Your task to perform on an android device: allow cookies in the chrome app Image 0: 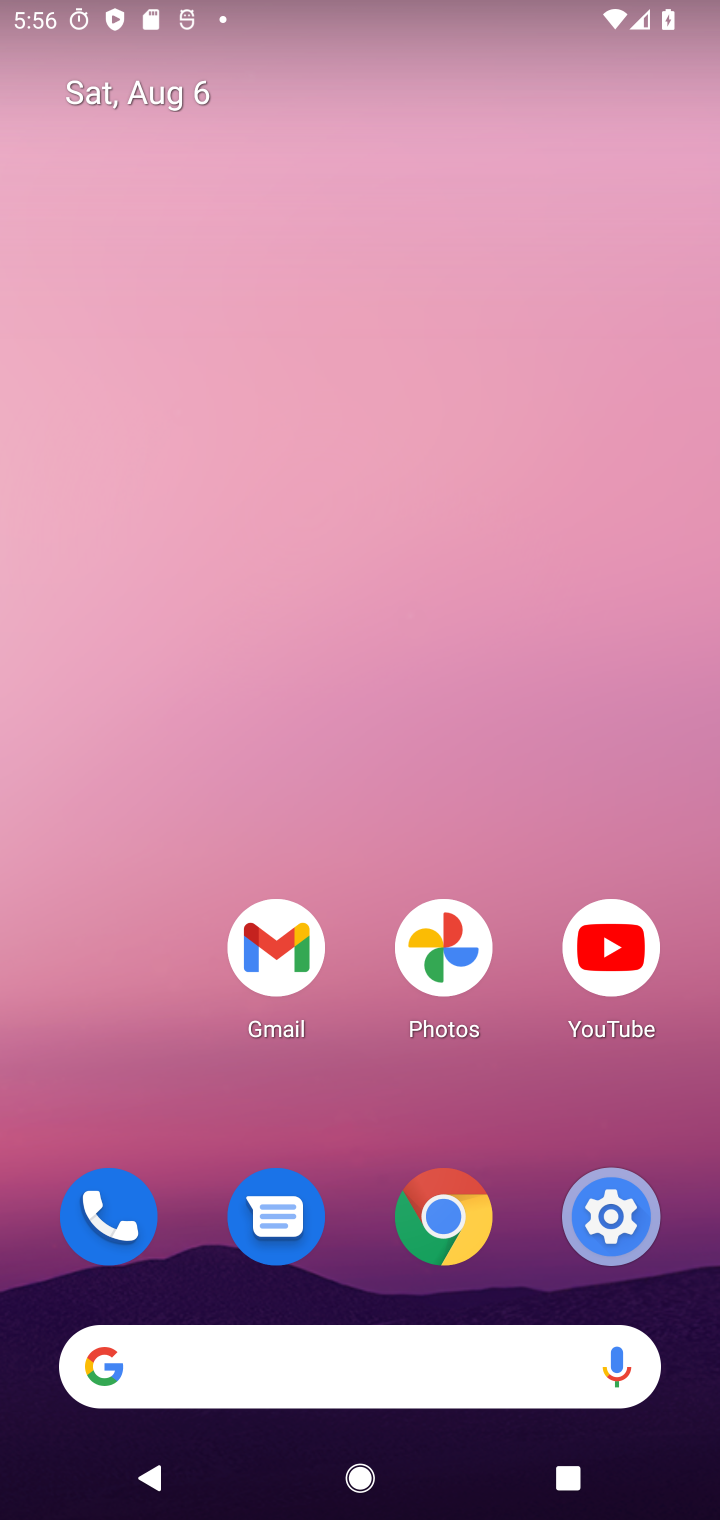
Step 0: drag from (396, 1048) to (386, 0)
Your task to perform on an android device: allow cookies in the chrome app Image 1: 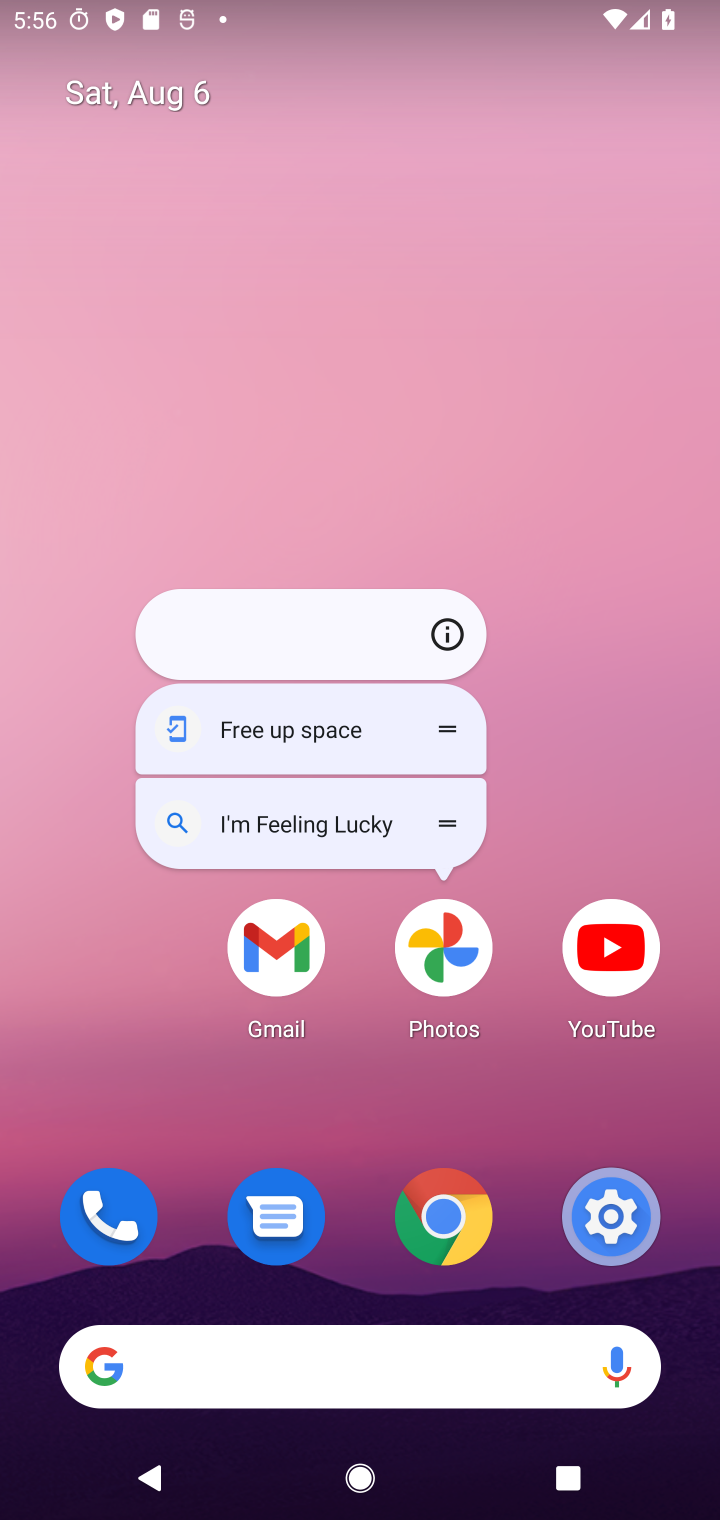
Step 1: click (368, 1099)
Your task to perform on an android device: allow cookies in the chrome app Image 2: 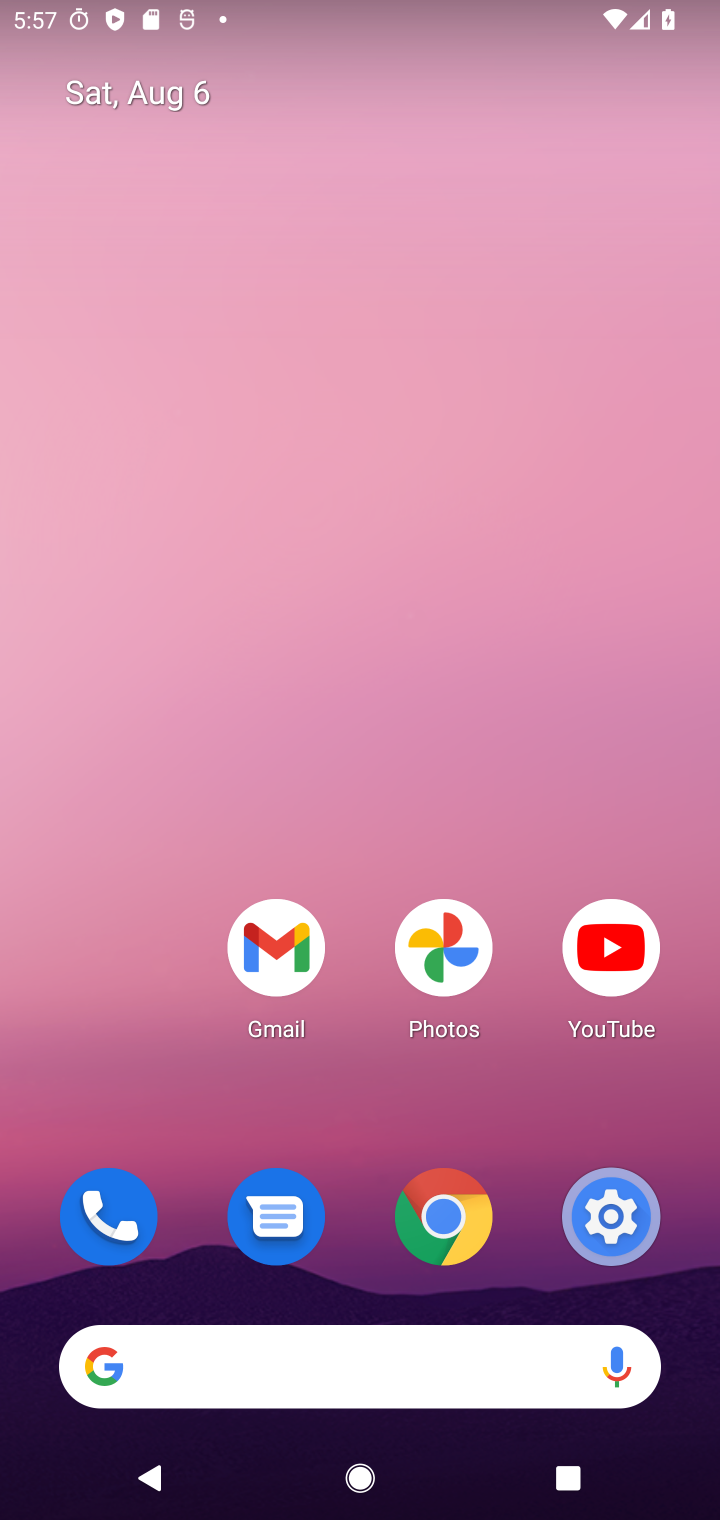
Step 2: drag from (369, 946) to (408, 239)
Your task to perform on an android device: allow cookies in the chrome app Image 3: 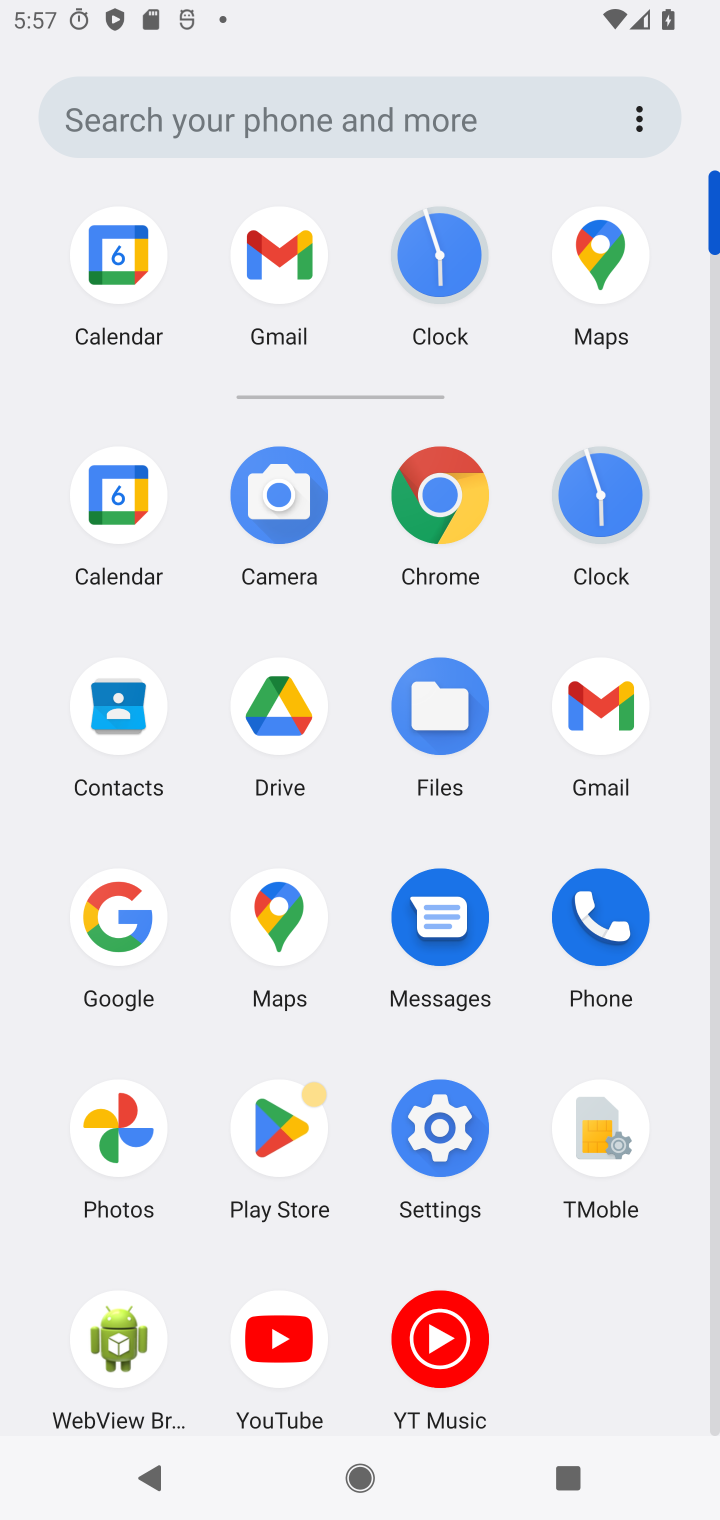
Step 3: click (438, 487)
Your task to perform on an android device: allow cookies in the chrome app Image 4: 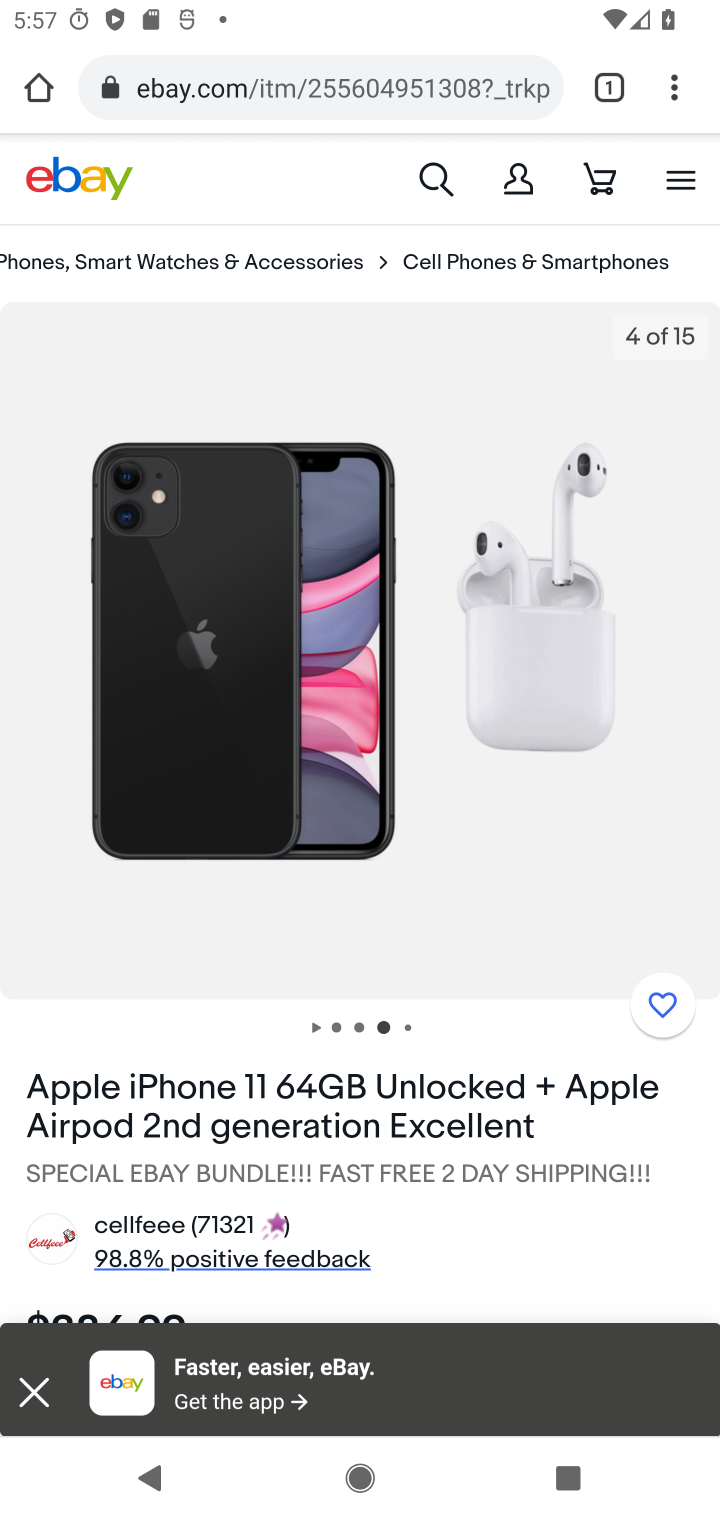
Step 4: drag from (678, 91) to (394, 1102)
Your task to perform on an android device: allow cookies in the chrome app Image 5: 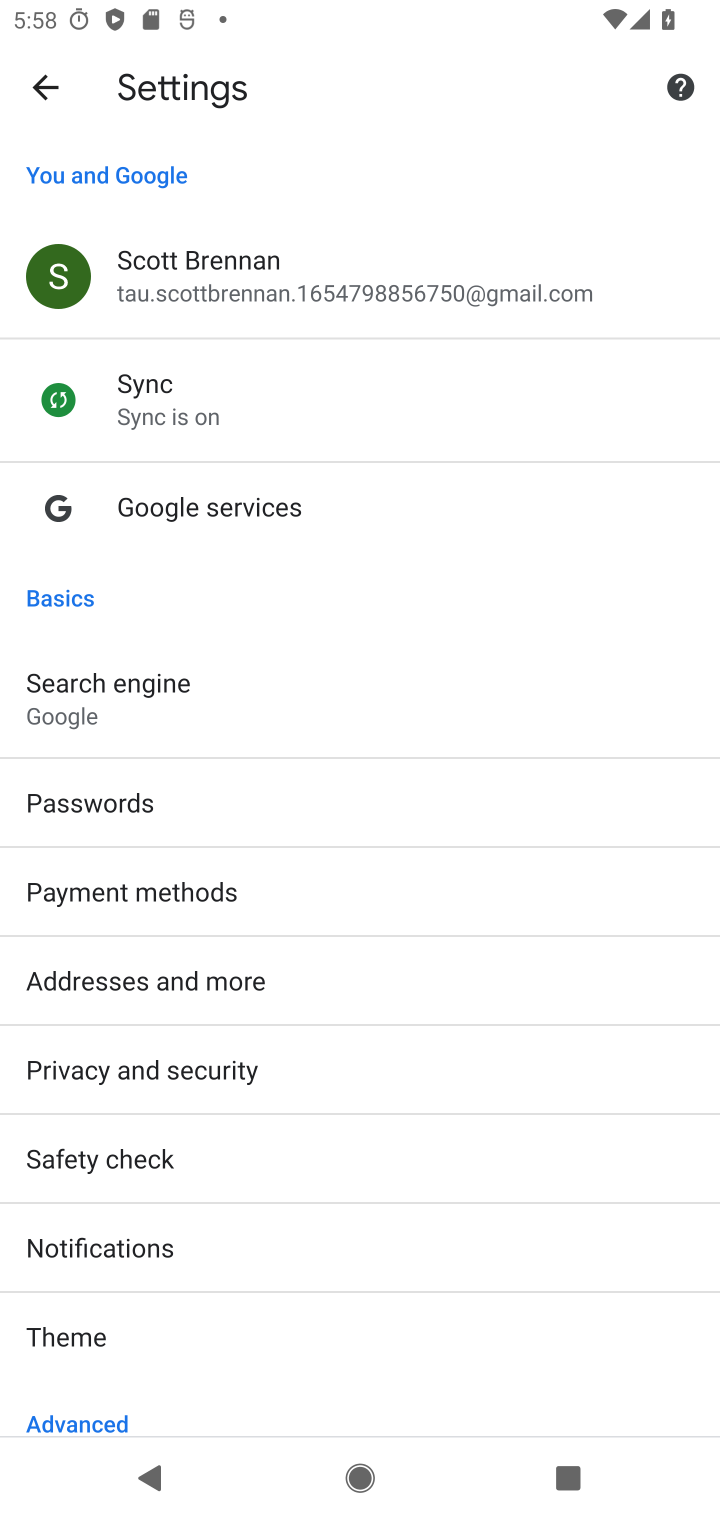
Step 5: drag from (183, 1276) to (286, 540)
Your task to perform on an android device: allow cookies in the chrome app Image 6: 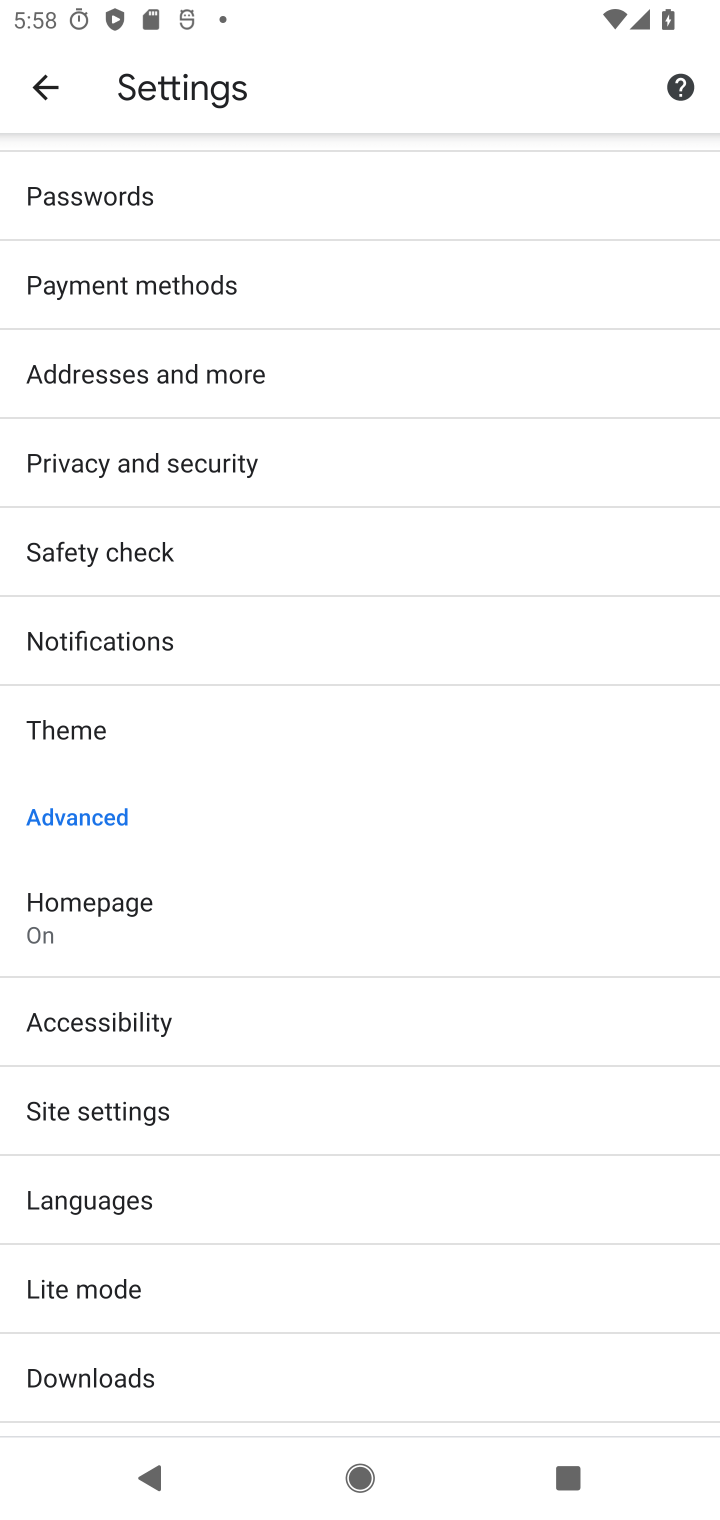
Step 6: click (130, 1136)
Your task to perform on an android device: allow cookies in the chrome app Image 7: 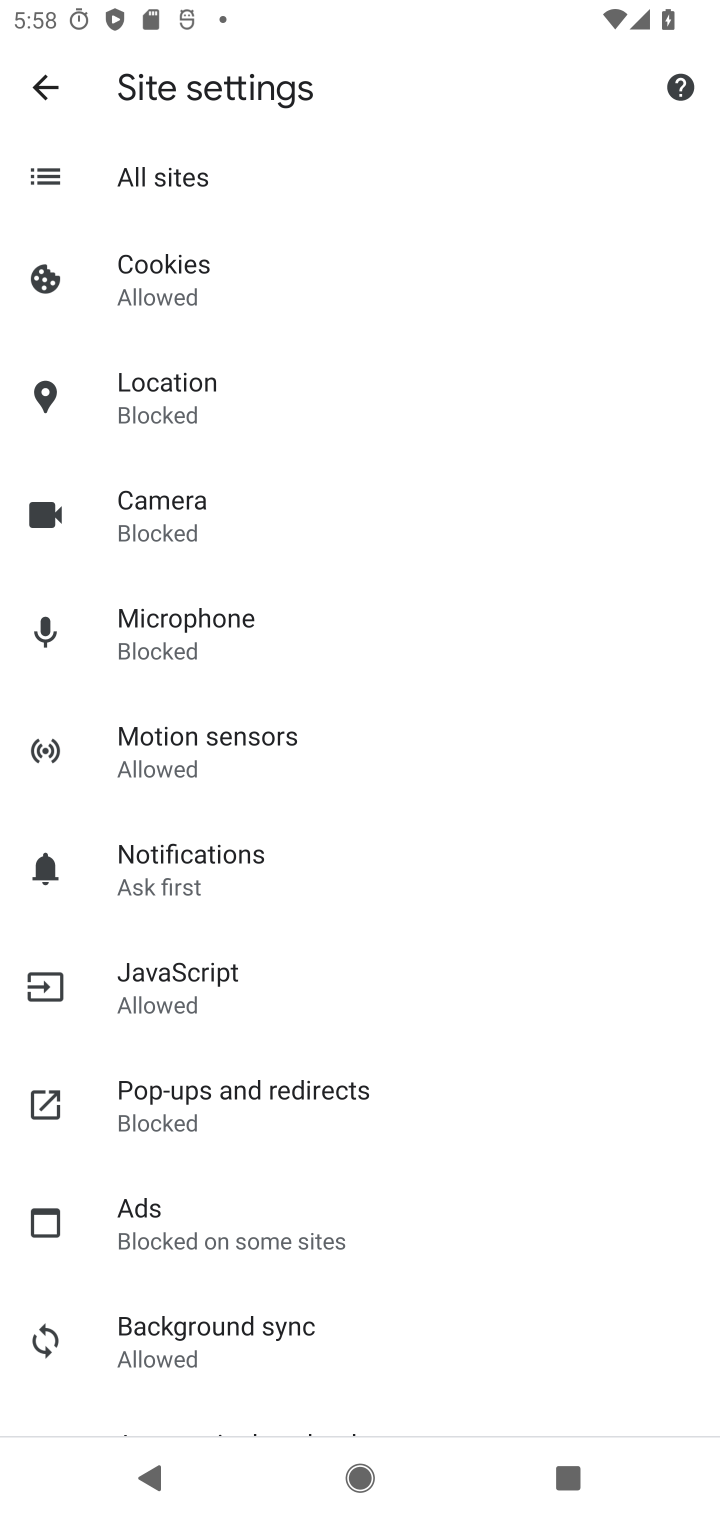
Step 7: click (187, 281)
Your task to perform on an android device: allow cookies in the chrome app Image 8: 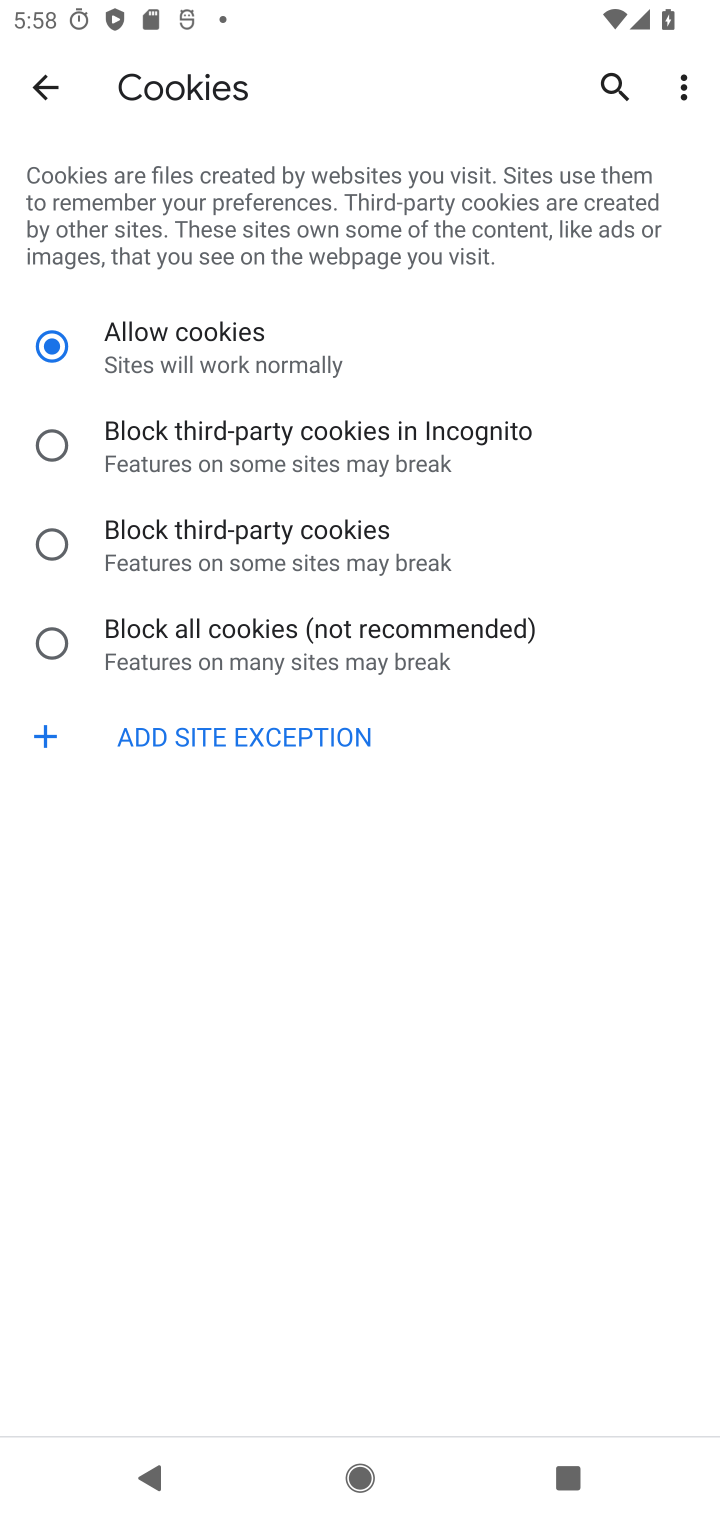
Step 8: task complete